Your task to perform on an android device: Open CNN.com Image 0: 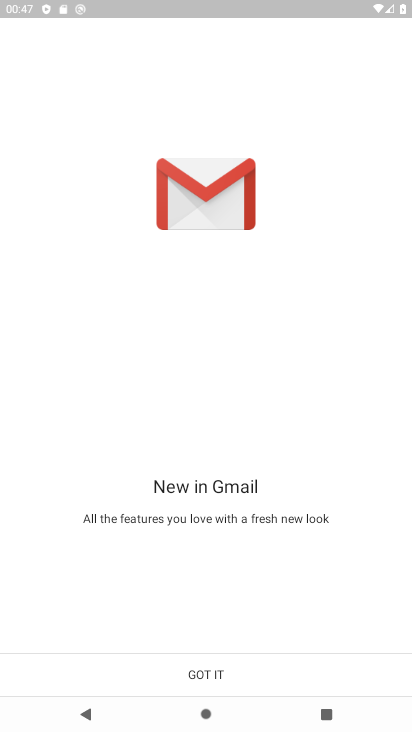
Step 0: press home button
Your task to perform on an android device: Open CNN.com Image 1: 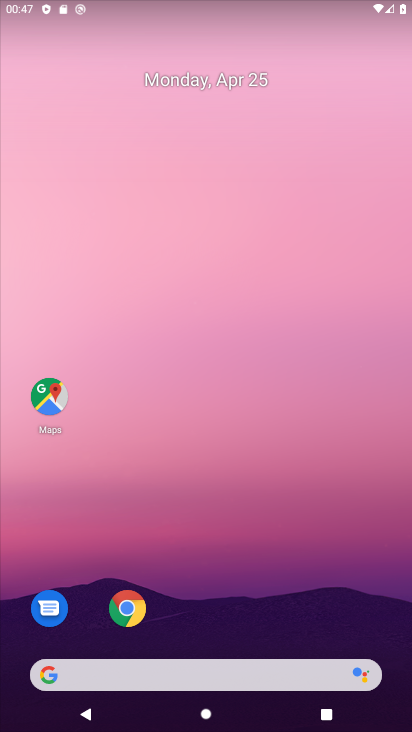
Step 1: click (129, 620)
Your task to perform on an android device: Open CNN.com Image 2: 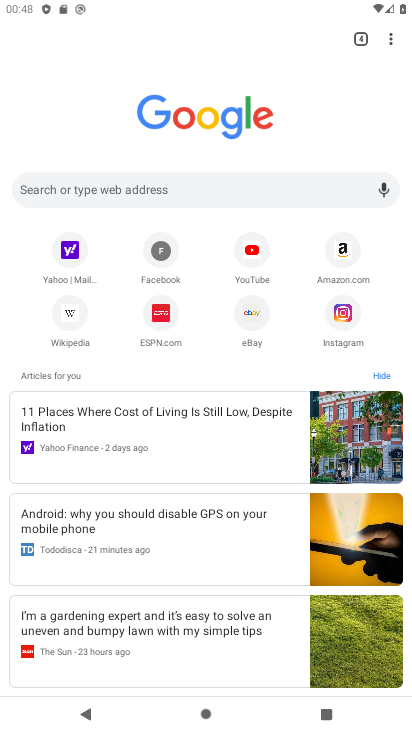
Step 2: click (249, 195)
Your task to perform on an android device: Open CNN.com Image 3: 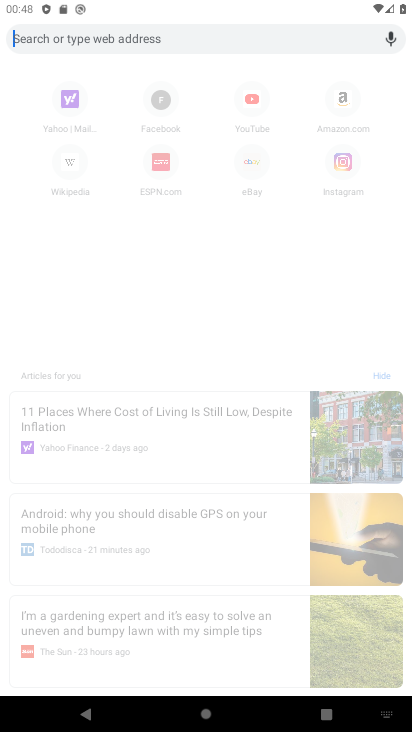
Step 3: type "cnn.com"
Your task to perform on an android device: Open CNN.com Image 4: 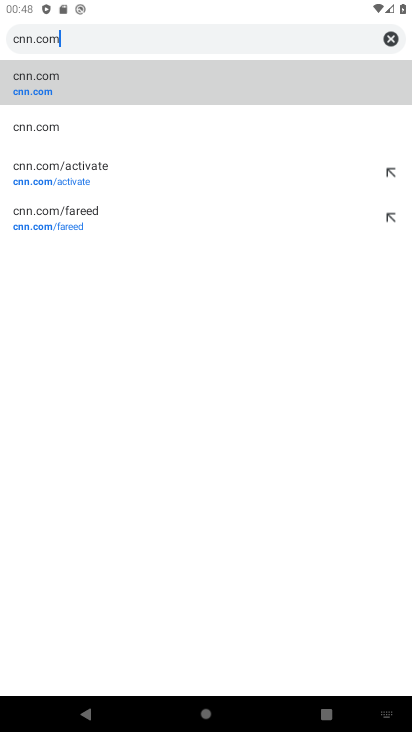
Step 4: click (36, 88)
Your task to perform on an android device: Open CNN.com Image 5: 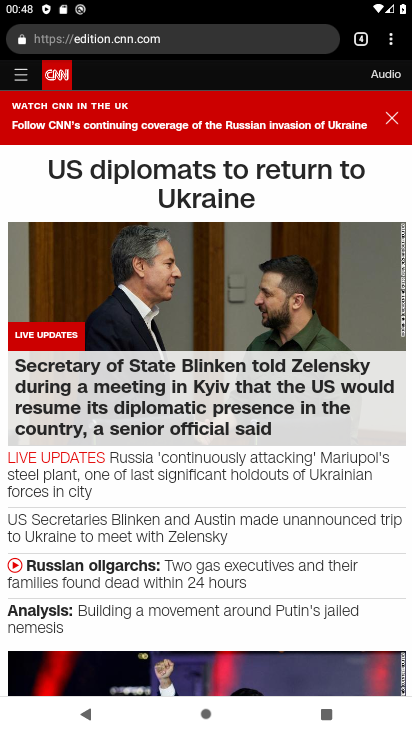
Step 5: task complete